Your task to perform on an android device: open app "Truecaller" (install if not already installed) Image 0: 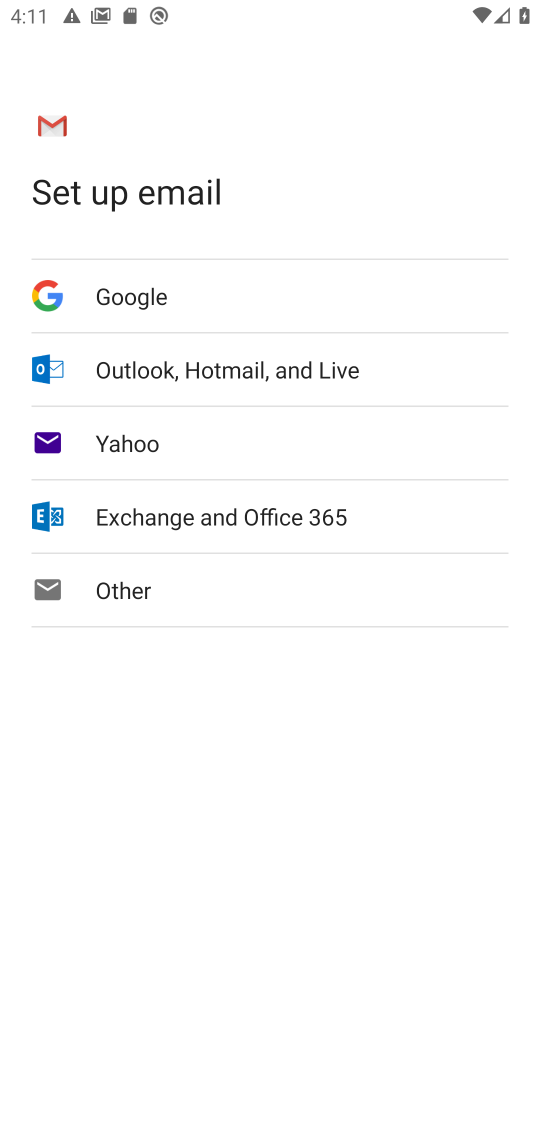
Step 0: press home button
Your task to perform on an android device: open app "Truecaller" (install if not already installed) Image 1: 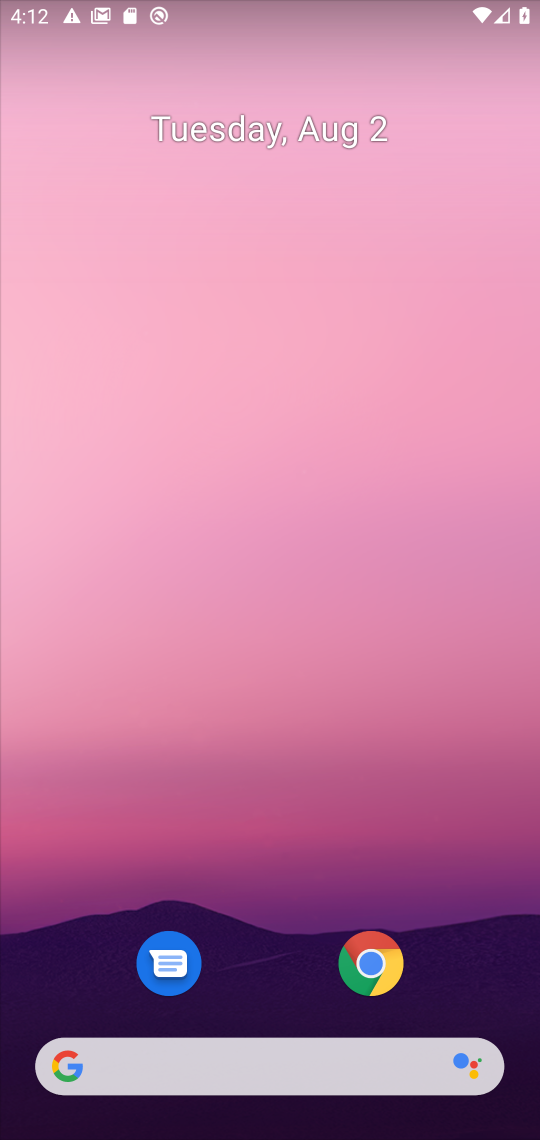
Step 1: drag from (250, 951) to (285, 167)
Your task to perform on an android device: open app "Truecaller" (install if not already installed) Image 2: 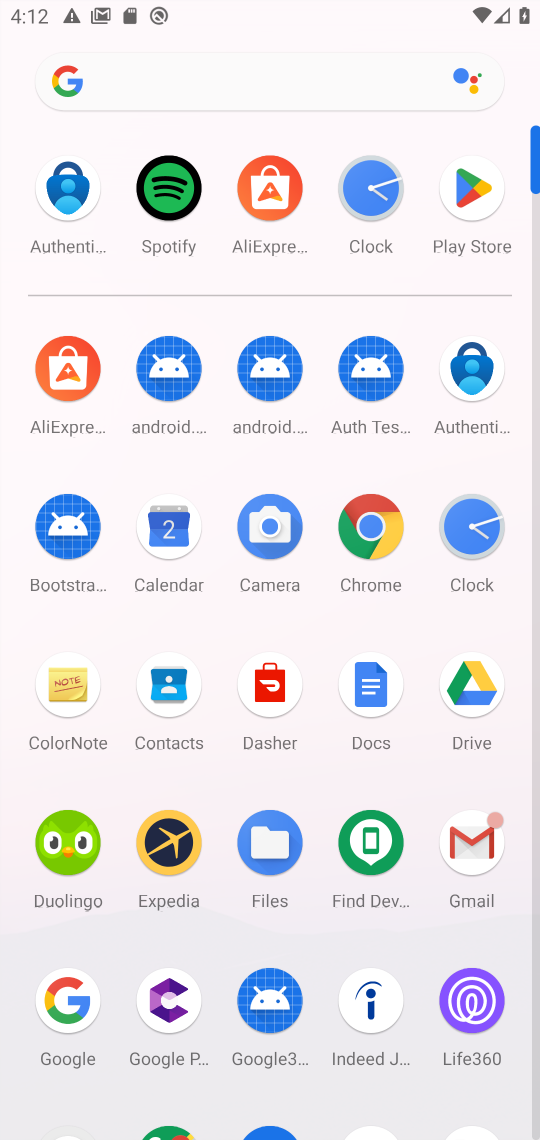
Step 2: click (485, 192)
Your task to perform on an android device: open app "Truecaller" (install if not already installed) Image 3: 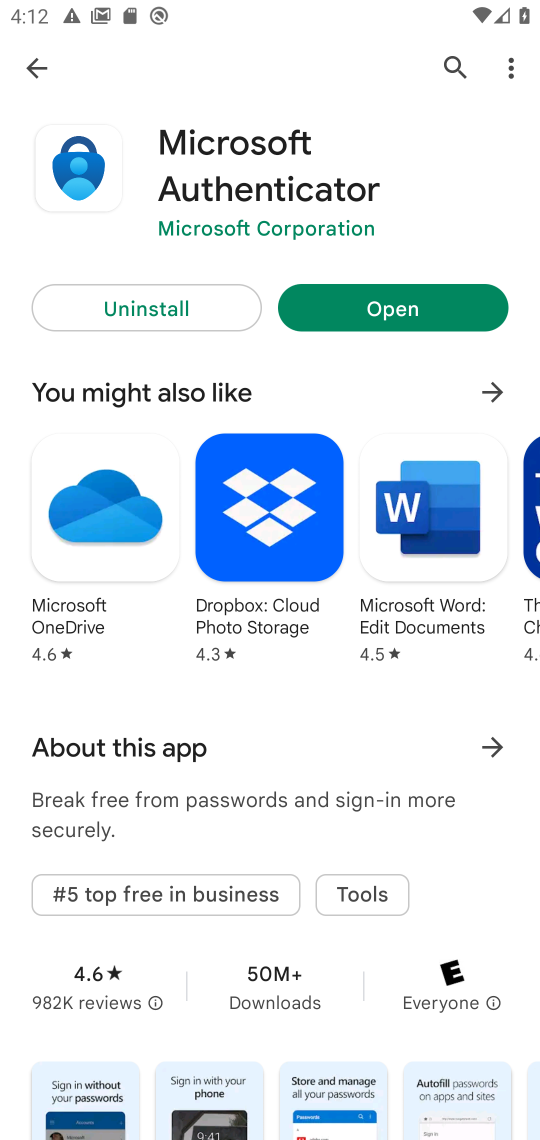
Step 3: click (447, 64)
Your task to perform on an android device: open app "Truecaller" (install if not already installed) Image 4: 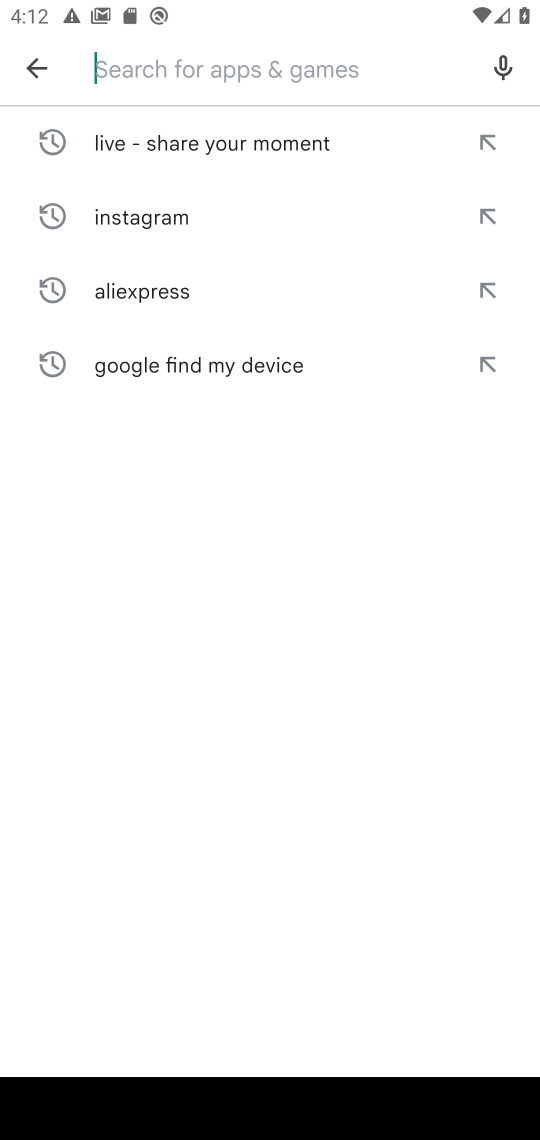
Step 4: type "Truecaller"
Your task to perform on an android device: open app "Truecaller" (install if not already installed) Image 5: 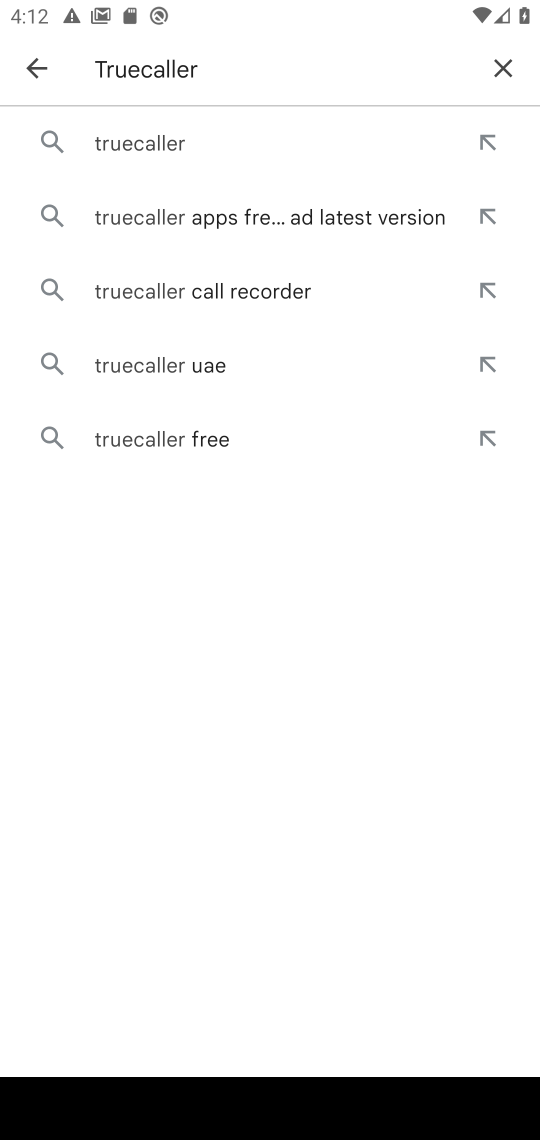
Step 5: click (156, 149)
Your task to perform on an android device: open app "Truecaller" (install if not already installed) Image 6: 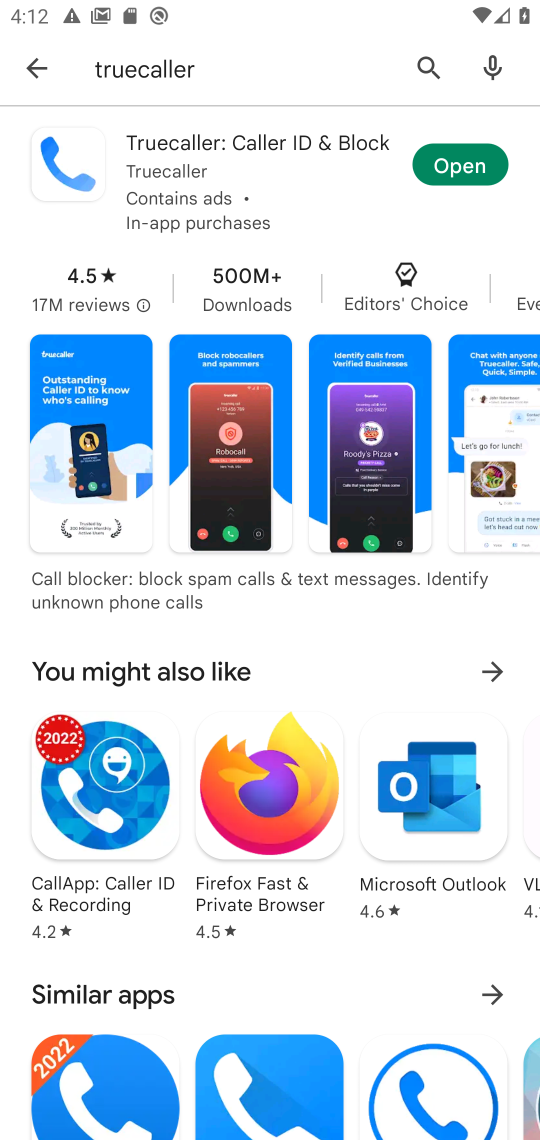
Step 6: click (458, 161)
Your task to perform on an android device: open app "Truecaller" (install if not already installed) Image 7: 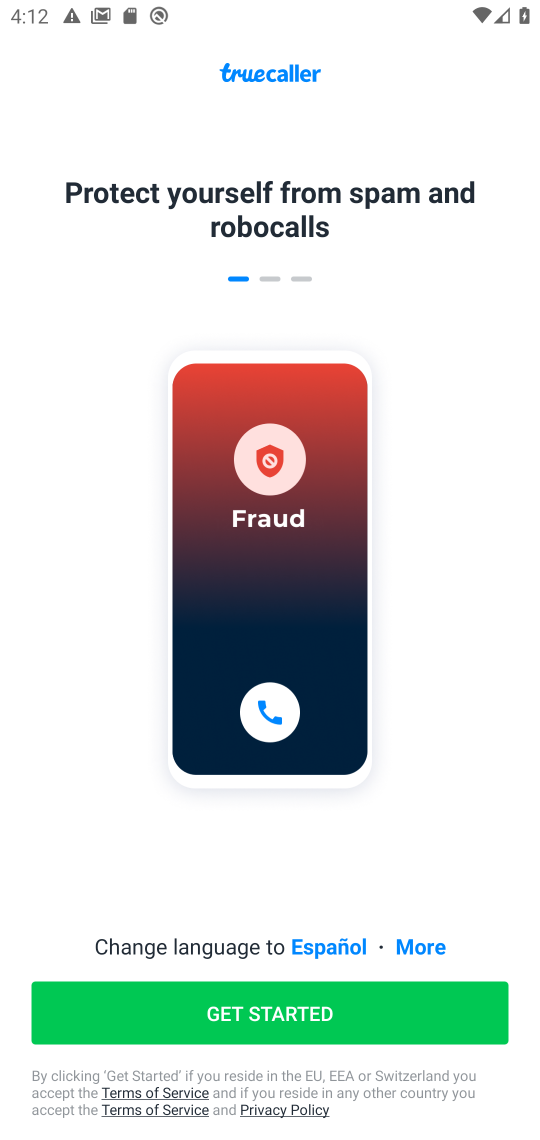
Step 7: task complete